Your task to perform on an android device: turn pop-ups on in chrome Image 0: 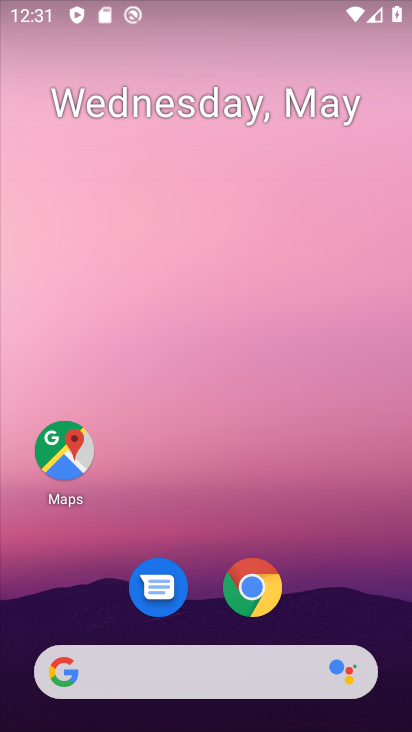
Step 0: drag from (354, 607) to (385, 273)
Your task to perform on an android device: turn pop-ups on in chrome Image 1: 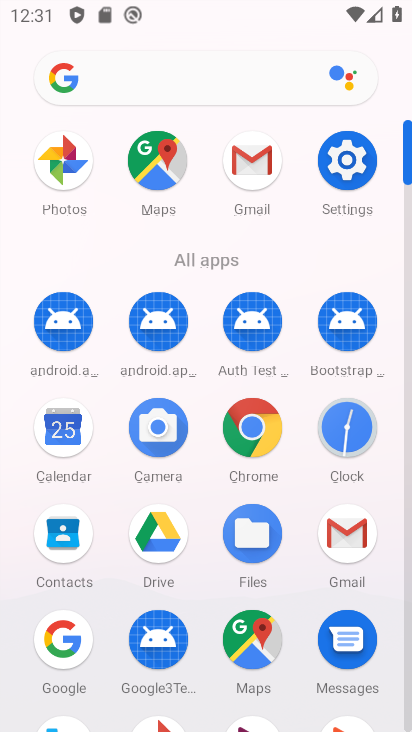
Step 1: click (263, 426)
Your task to perform on an android device: turn pop-ups on in chrome Image 2: 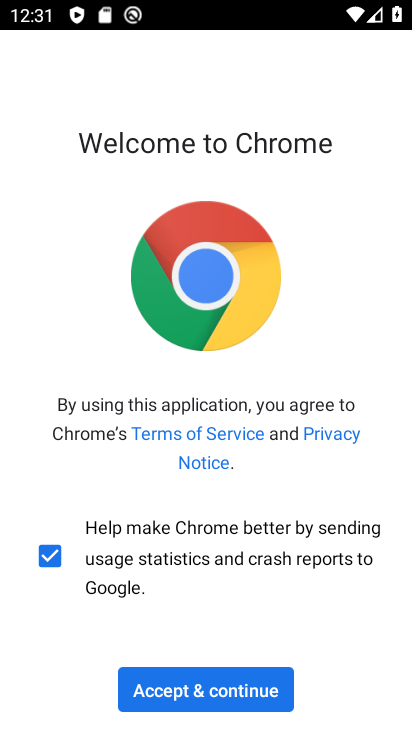
Step 2: click (238, 708)
Your task to perform on an android device: turn pop-ups on in chrome Image 3: 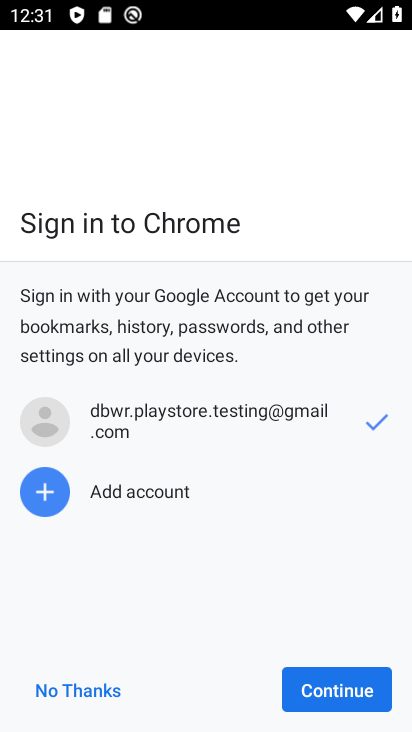
Step 3: click (362, 690)
Your task to perform on an android device: turn pop-ups on in chrome Image 4: 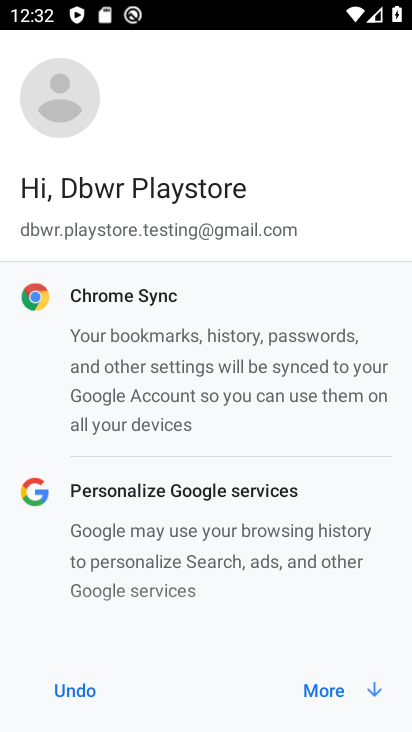
Step 4: click (327, 687)
Your task to perform on an android device: turn pop-ups on in chrome Image 5: 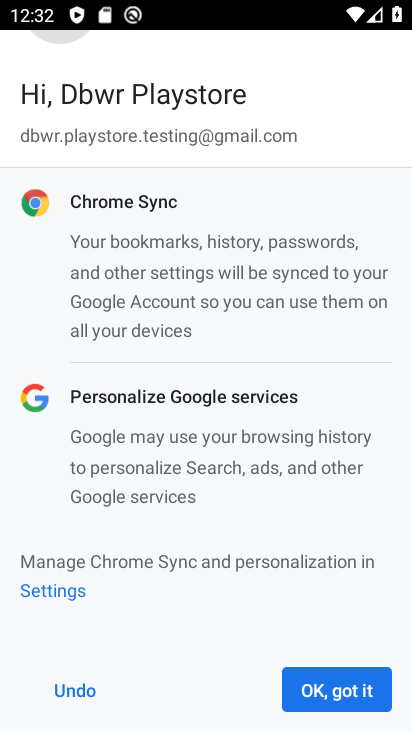
Step 5: click (363, 683)
Your task to perform on an android device: turn pop-ups on in chrome Image 6: 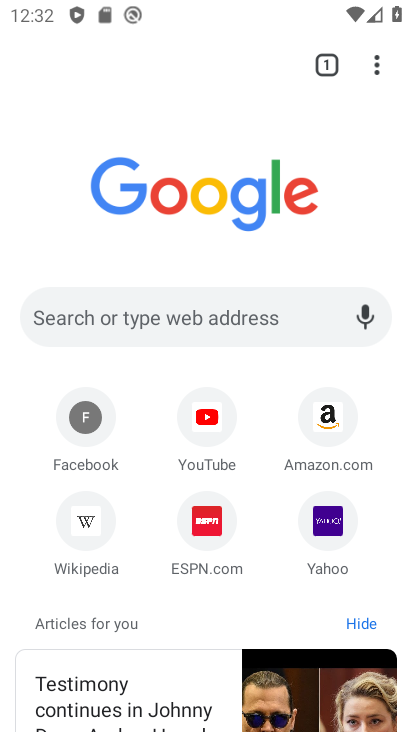
Step 6: click (373, 70)
Your task to perform on an android device: turn pop-ups on in chrome Image 7: 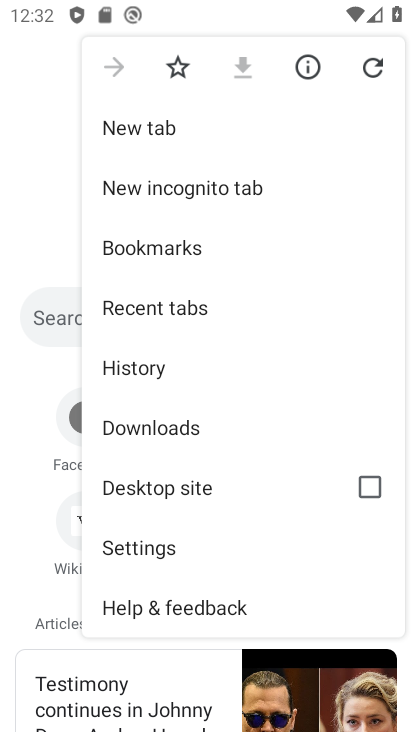
Step 7: click (184, 557)
Your task to perform on an android device: turn pop-ups on in chrome Image 8: 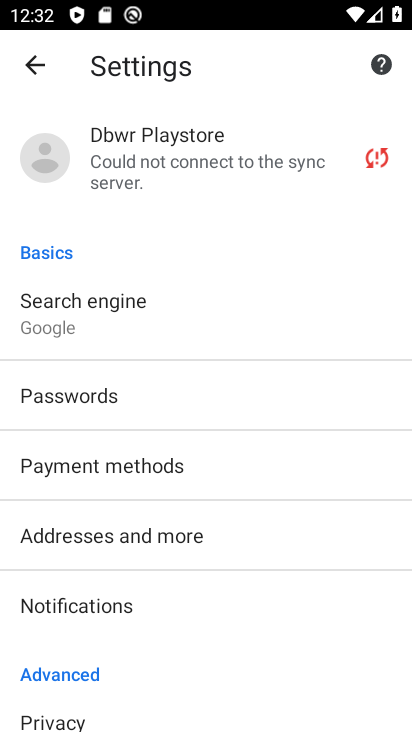
Step 8: drag from (300, 602) to (296, 474)
Your task to perform on an android device: turn pop-ups on in chrome Image 9: 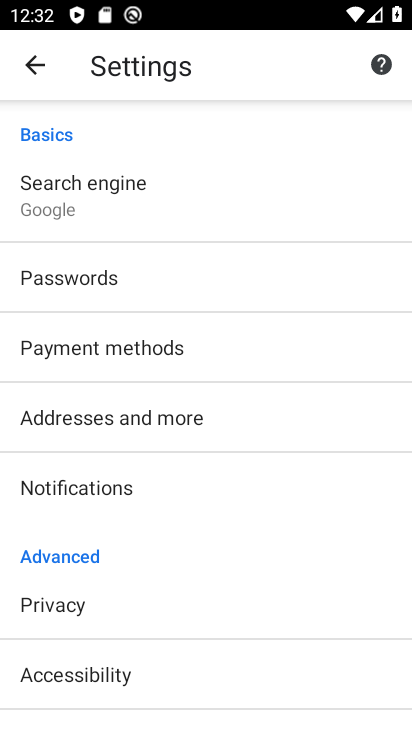
Step 9: drag from (323, 610) to (352, 473)
Your task to perform on an android device: turn pop-ups on in chrome Image 10: 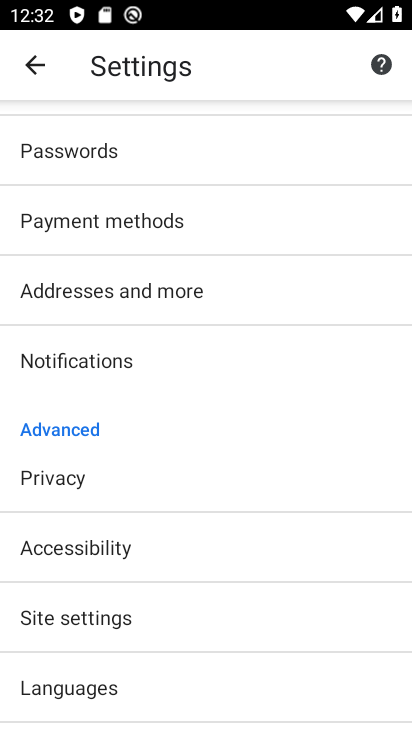
Step 10: drag from (317, 624) to (308, 452)
Your task to perform on an android device: turn pop-ups on in chrome Image 11: 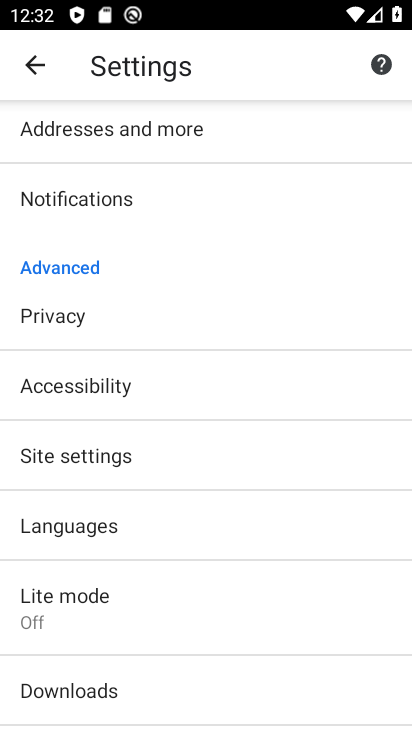
Step 11: drag from (322, 612) to (341, 496)
Your task to perform on an android device: turn pop-ups on in chrome Image 12: 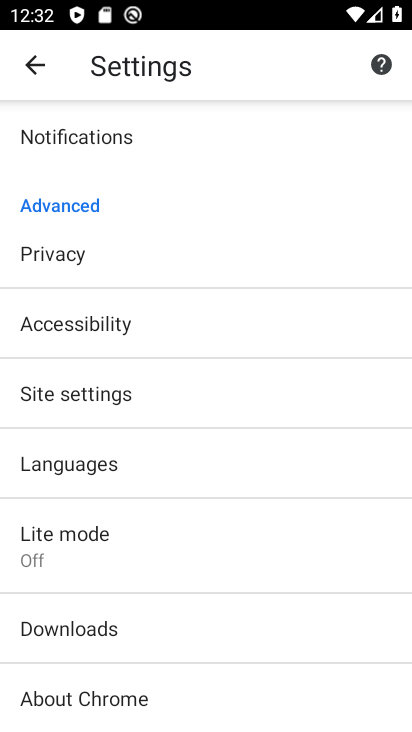
Step 12: drag from (336, 636) to (336, 412)
Your task to perform on an android device: turn pop-ups on in chrome Image 13: 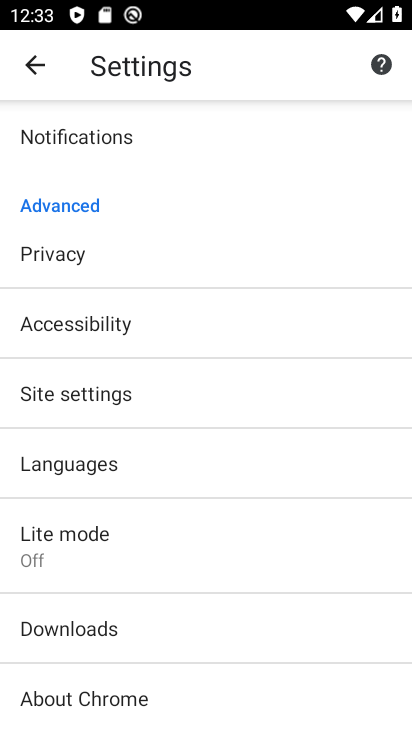
Step 13: click (342, 378)
Your task to perform on an android device: turn pop-ups on in chrome Image 14: 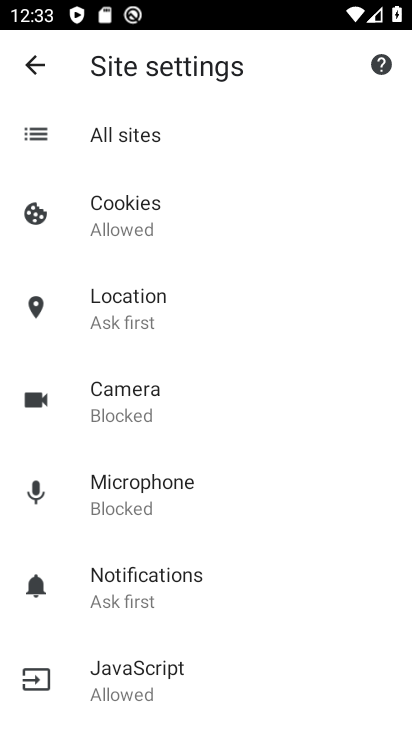
Step 14: drag from (334, 484) to (353, 338)
Your task to perform on an android device: turn pop-ups on in chrome Image 15: 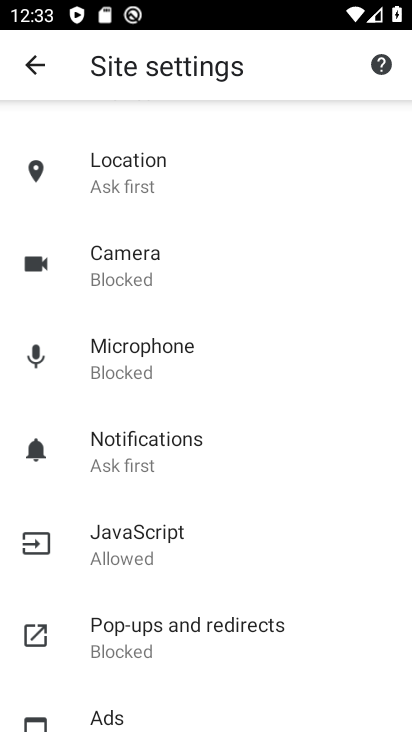
Step 15: drag from (335, 555) to (345, 377)
Your task to perform on an android device: turn pop-ups on in chrome Image 16: 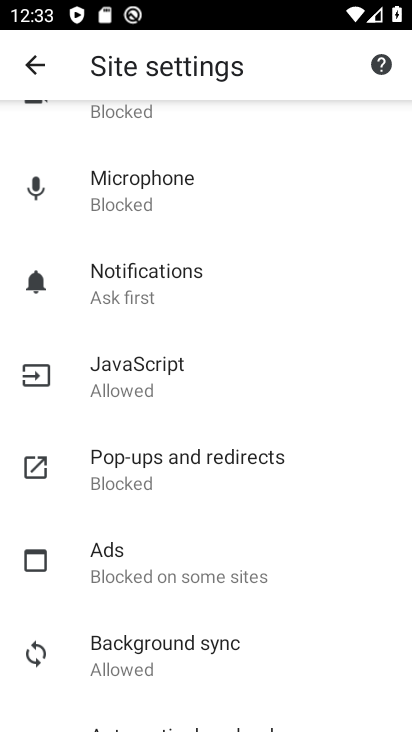
Step 16: click (295, 484)
Your task to perform on an android device: turn pop-ups on in chrome Image 17: 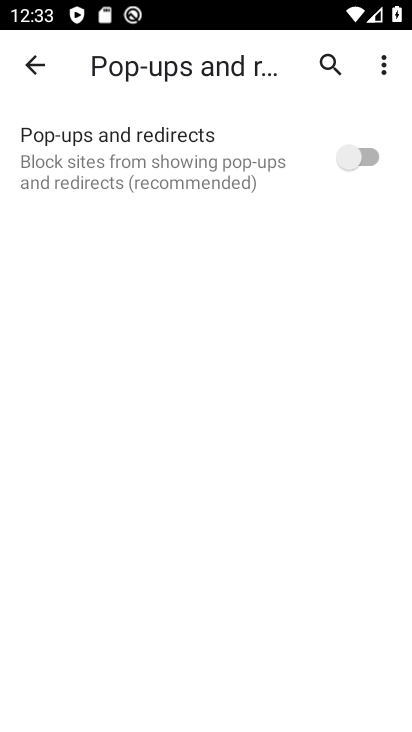
Step 17: click (378, 159)
Your task to perform on an android device: turn pop-ups on in chrome Image 18: 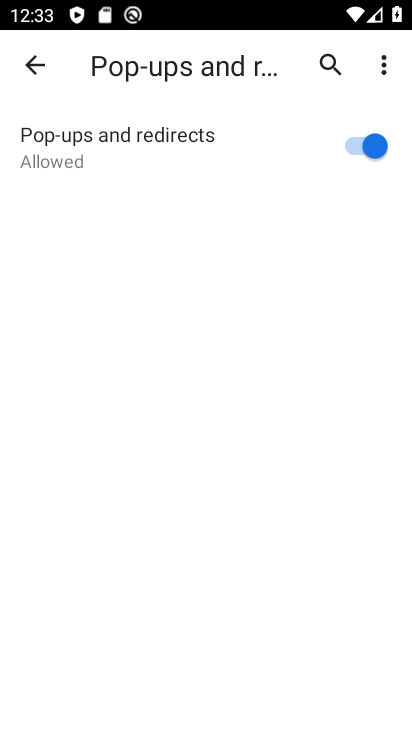
Step 18: task complete